Your task to perform on an android device: Go to Google maps Image 0: 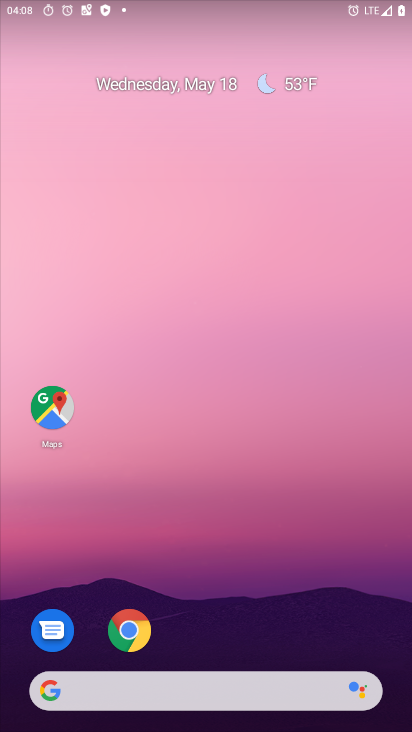
Step 0: drag from (251, 724) to (255, 289)
Your task to perform on an android device: Go to Google maps Image 1: 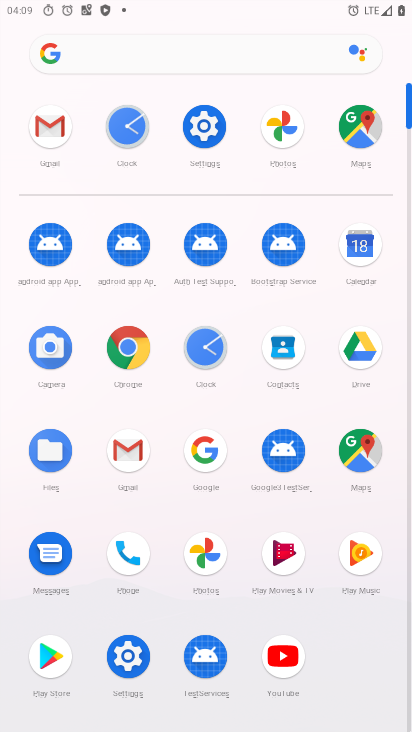
Step 1: click (362, 457)
Your task to perform on an android device: Go to Google maps Image 2: 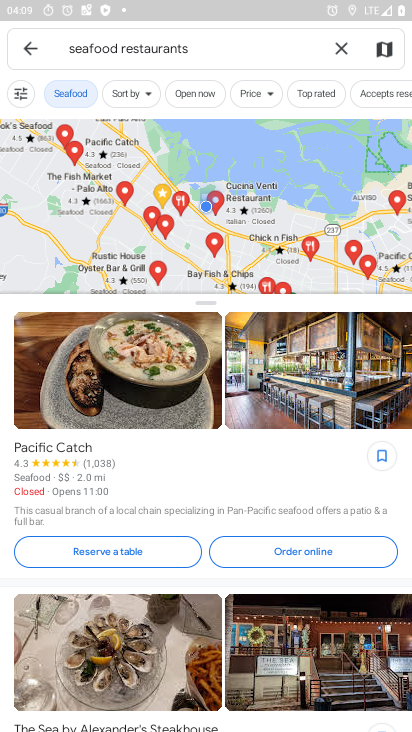
Step 2: task complete